Your task to perform on an android device: turn off notifications in google photos Image 0: 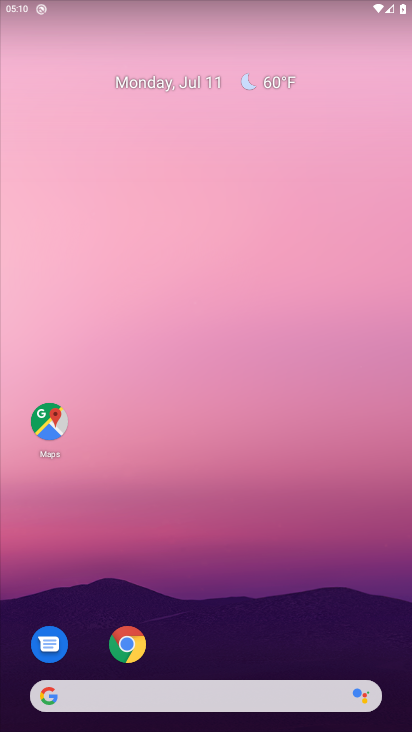
Step 0: drag from (216, 647) to (248, 229)
Your task to perform on an android device: turn off notifications in google photos Image 1: 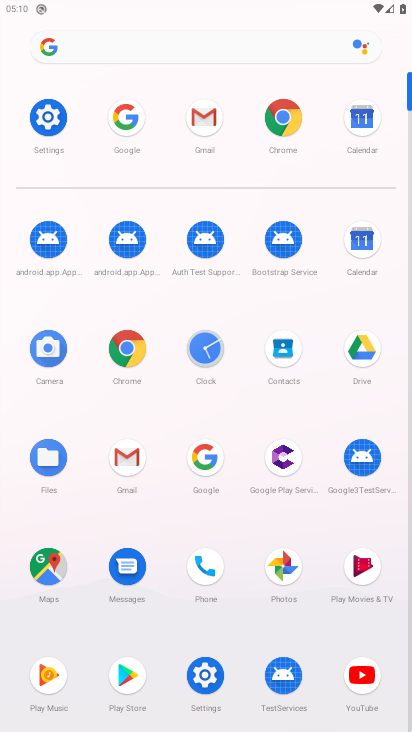
Step 1: click (284, 570)
Your task to perform on an android device: turn off notifications in google photos Image 2: 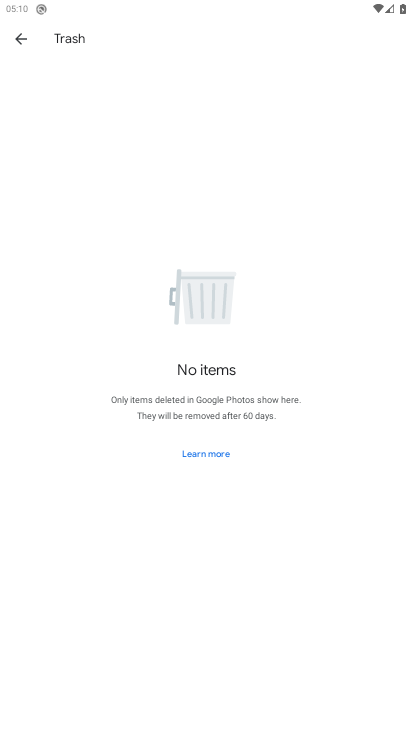
Step 2: click (20, 33)
Your task to perform on an android device: turn off notifications in google photos Image 3: 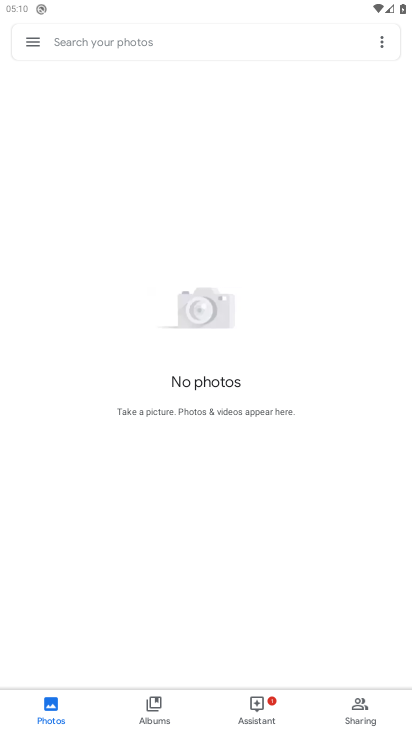
Step 3: click (23, 35)
Your task to perform on an android device: turn off notifications in google photos Image 4: 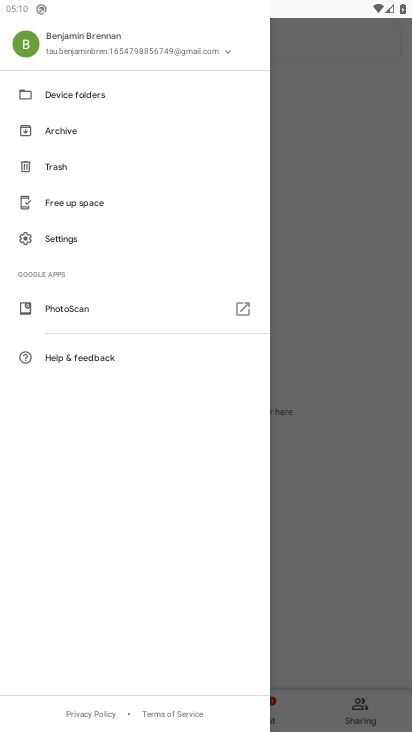
Step 4: click (77, 240)
Your task to perform on an android device: turn off notifications in google photos Image 5: 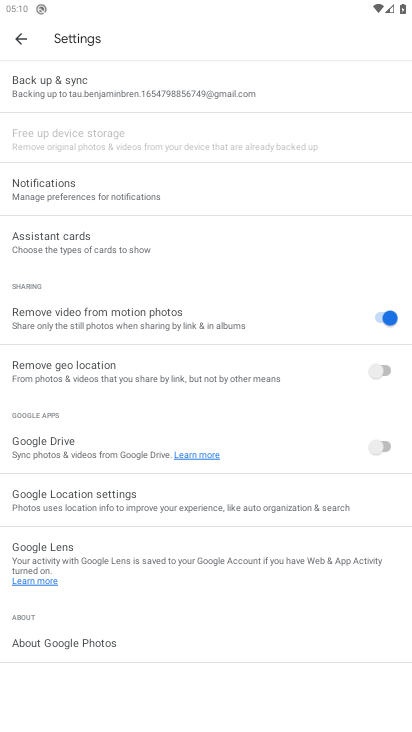
Step 5: click (101, 82)
Your task to perform on an android device: turn off notifications in google photos Image 6: 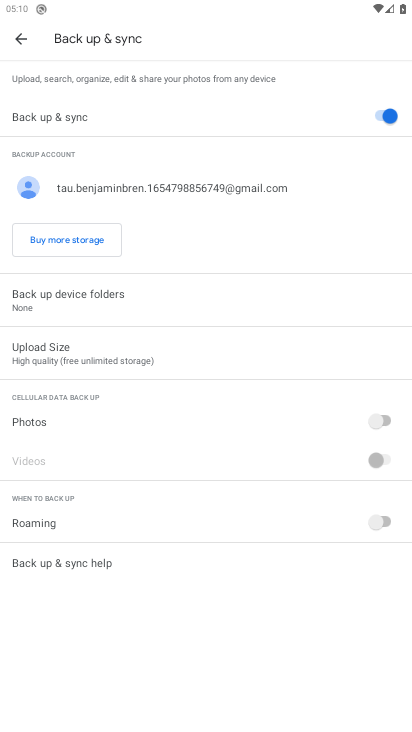
Step 6: click (22, 37)
Your task to perform on an android device: turn off notifications in google photos Image 7: 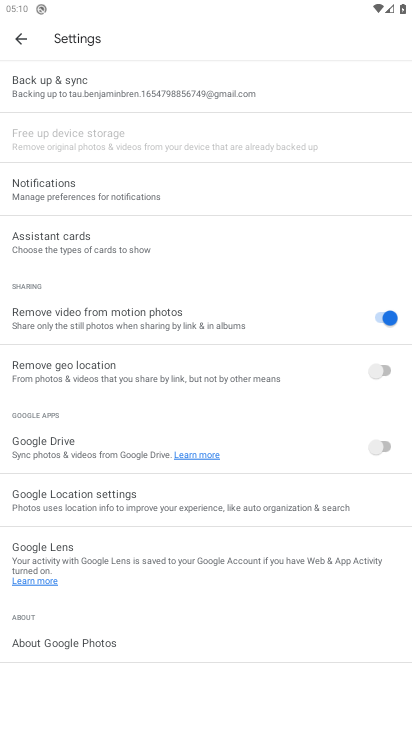
Step 7: click (90, 198)
Your task to perform on an android device: turn off notifications in google photos Image 8: 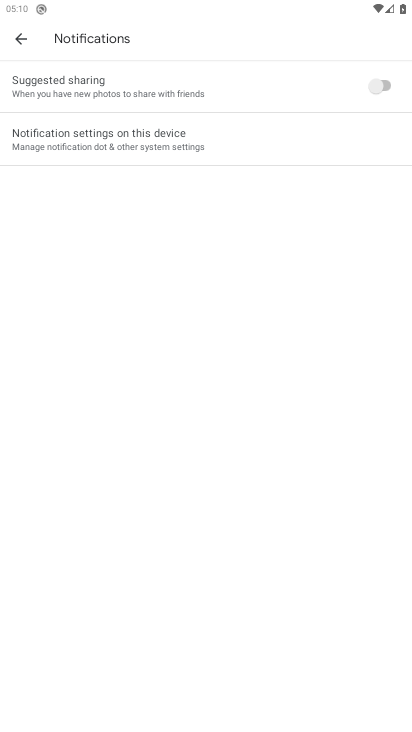
Step 8: click (89, 141)
Your task to perform on an android device: turn off notifications in google photos Image 9: 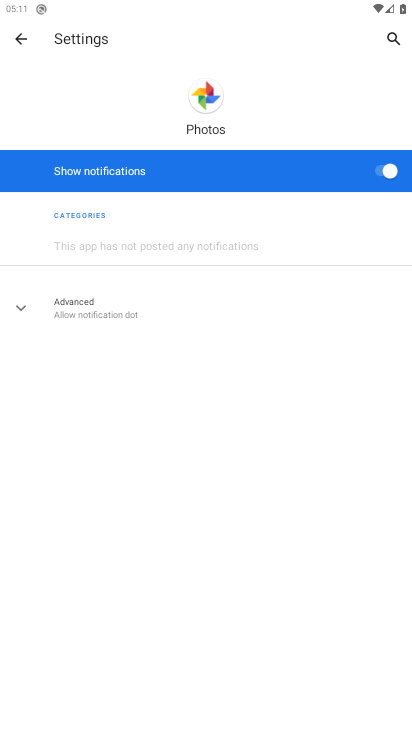
Step 9: click (380, 169)
Your task to perform on an android device: turn off notifications in google photos Image 10: 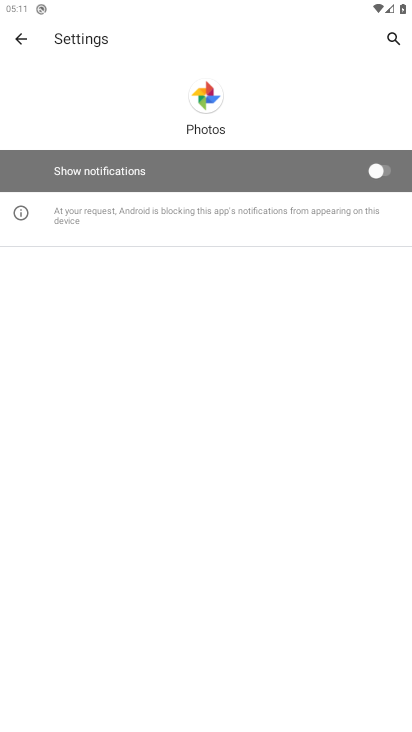
Step 10: task complete